Your task to perform on an android device: Open Chrome and go to the settings page Image 0: 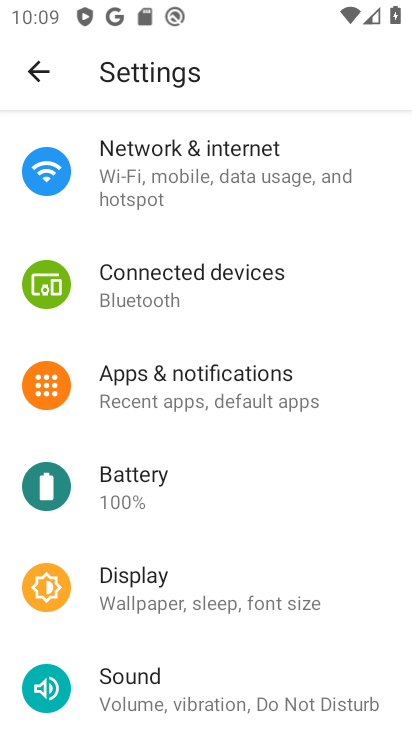
Step 0: press home button
Your task to perform on an android device: Open Chrome and go to the settings page Image 1: 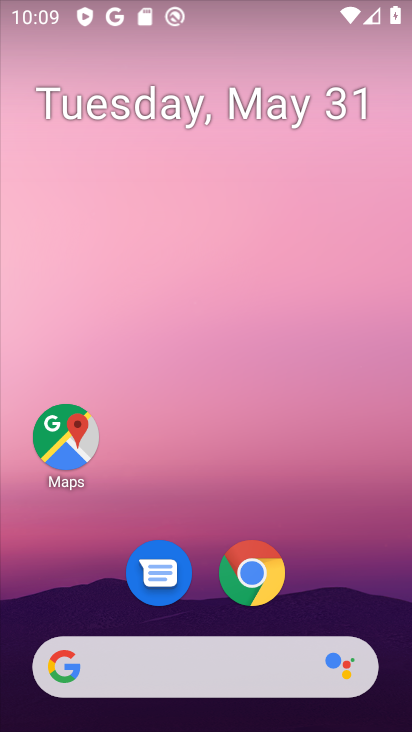
Step 1: click (249, 598)
Your task to perform on an android device: Open Chrome and go to the settings page Image 2: 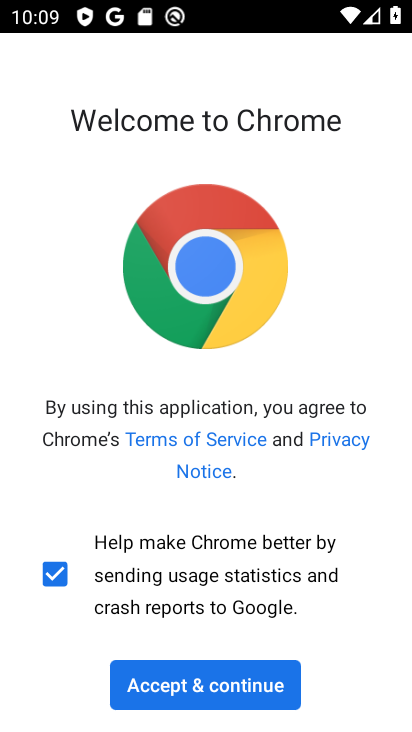
Step 2: click (228, 701)
Your task to perform on an android device: Open Chrome and go to the settings page Image 3: 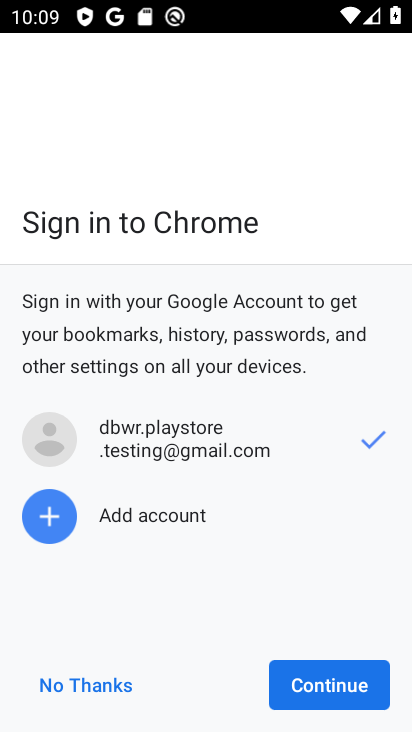
Step 3: click (312, 668)
Your task to perform on an android device: Open Chrome and go to the settings page Image 4: 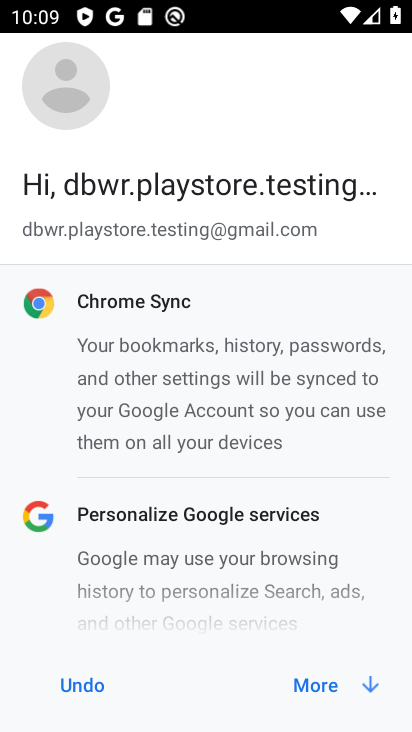
Step 4: click (348, 692)
Your task to perform on an android device: Open Chrome and go to the settings page Image 5: 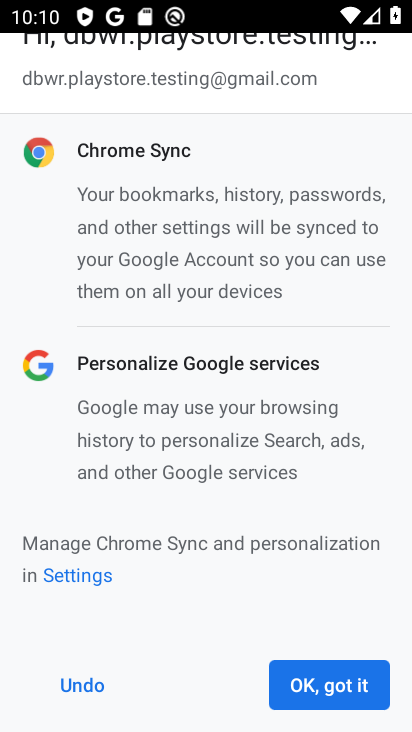
Step 5: click (348, 692)
Your task to perform on an android device: Open Chrome and go to the settings page Image 6: 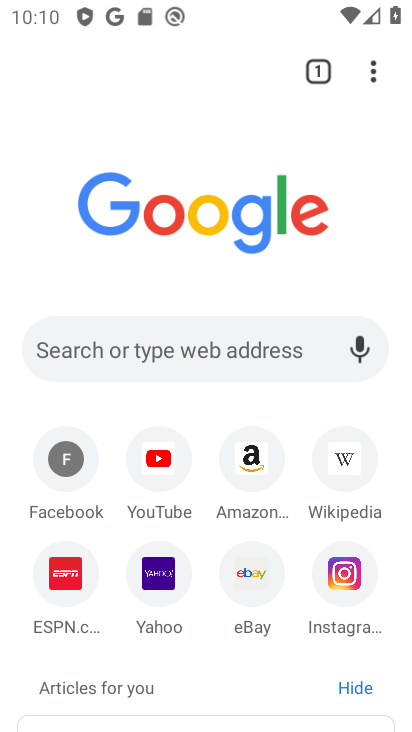
Step 6: task complete